Your task to perform on an android device: Search for logitech g pro on ebay.com, select the first entry, and add it to the cart. Image 0: 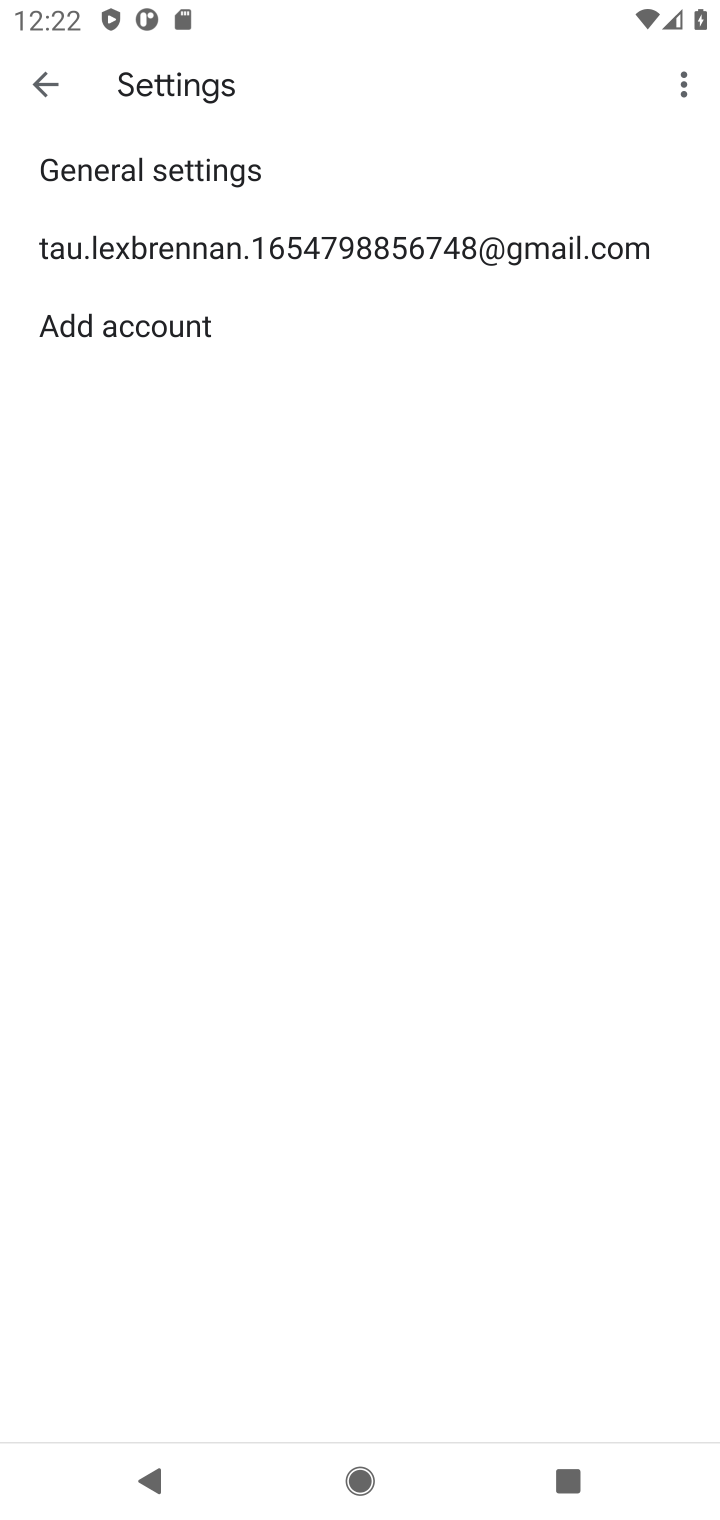
Step 0: press home button
Your task to perform on an android device: Search for logitech g pro on ebay.com, select the first entry, and add it to the cart. Image 1: 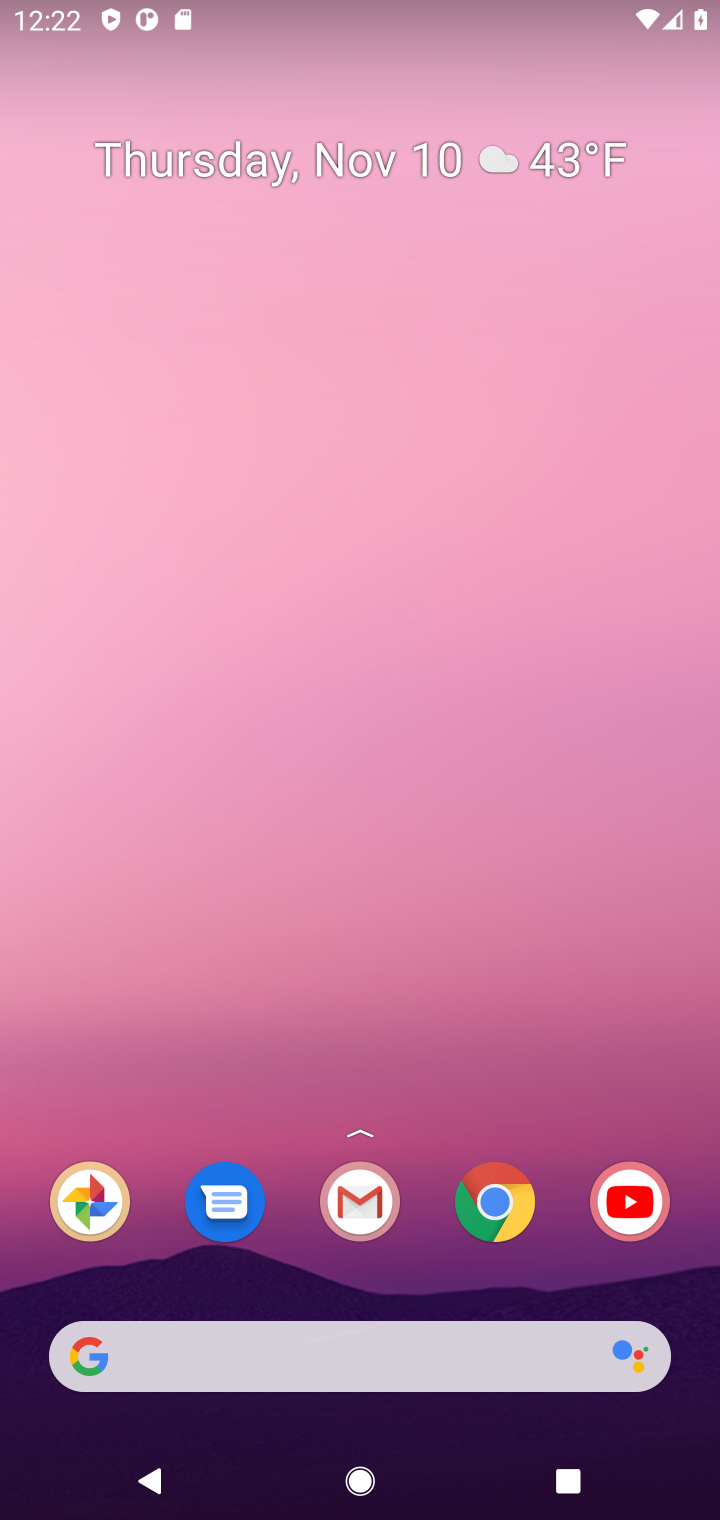
Step 1: click (489, 1198)
Your task to perform on an android device: Search for logitech g pro on ebay.com, select the first entry, and add it to the cart. Image 2: 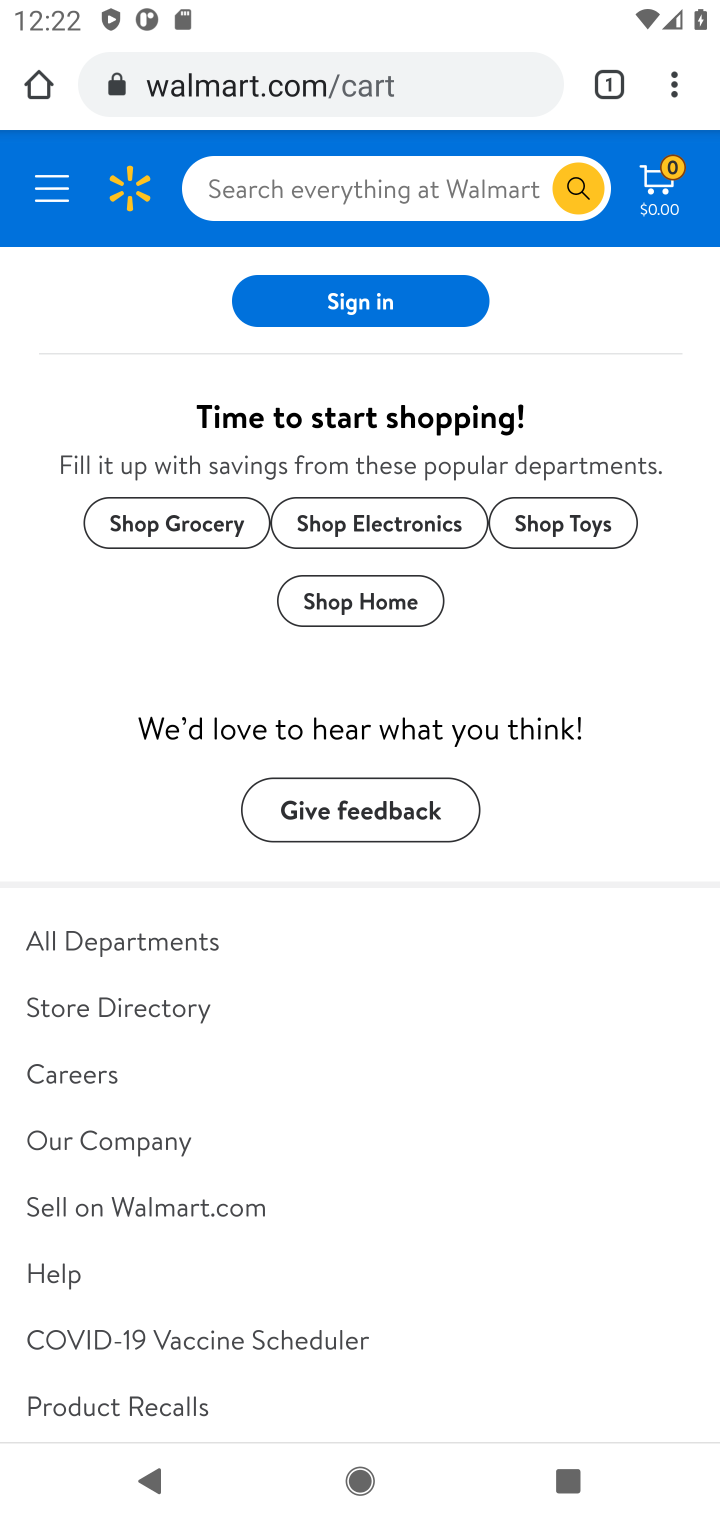
Step 2: click (417, 92)
Your task to perform on an android device: Search for logitech g pro on ebay.com, select the first entry, and add it to the cart. Image 3: 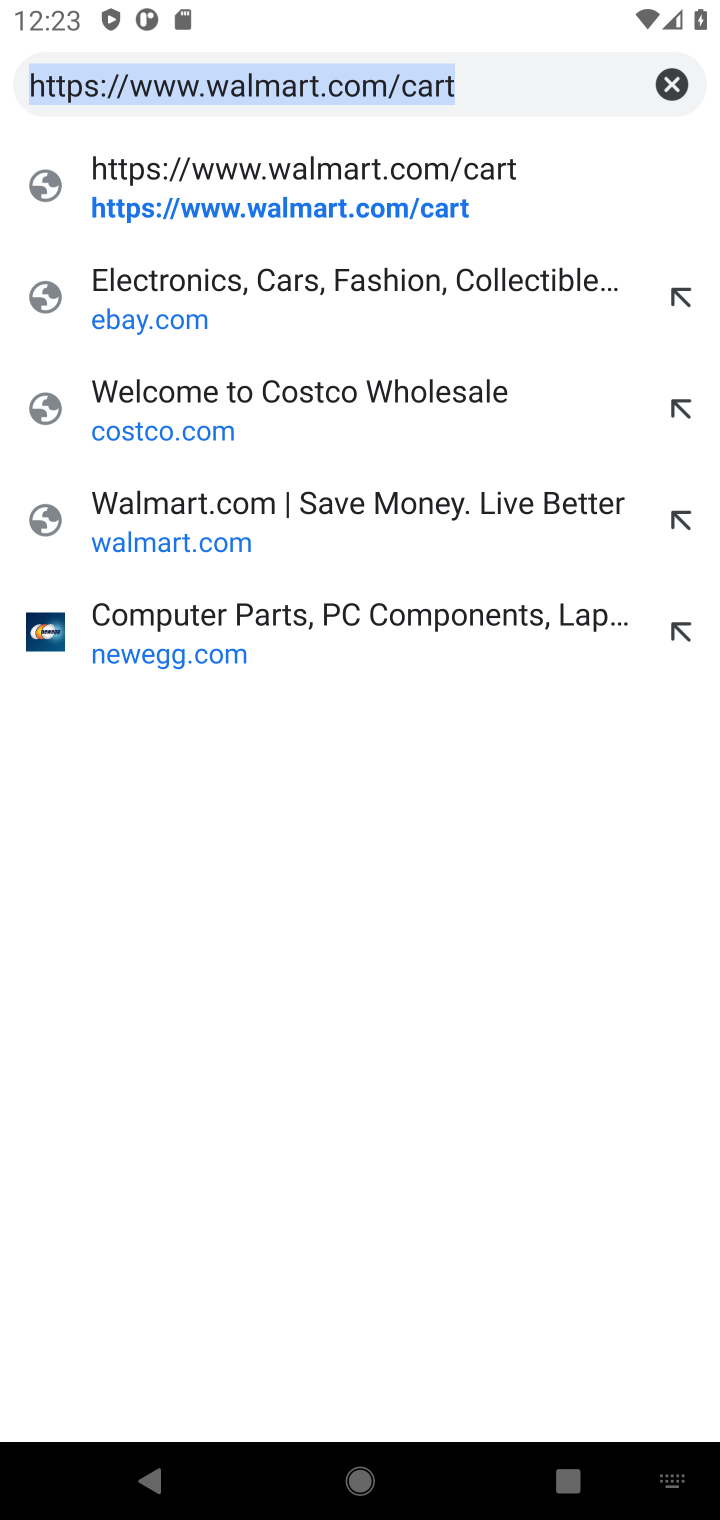
Step 3: click (245, 282)
Your task to perform on an android device: Search for logitech g pro on ebay.com, select the first entry, and add it to the cart. Image 4: 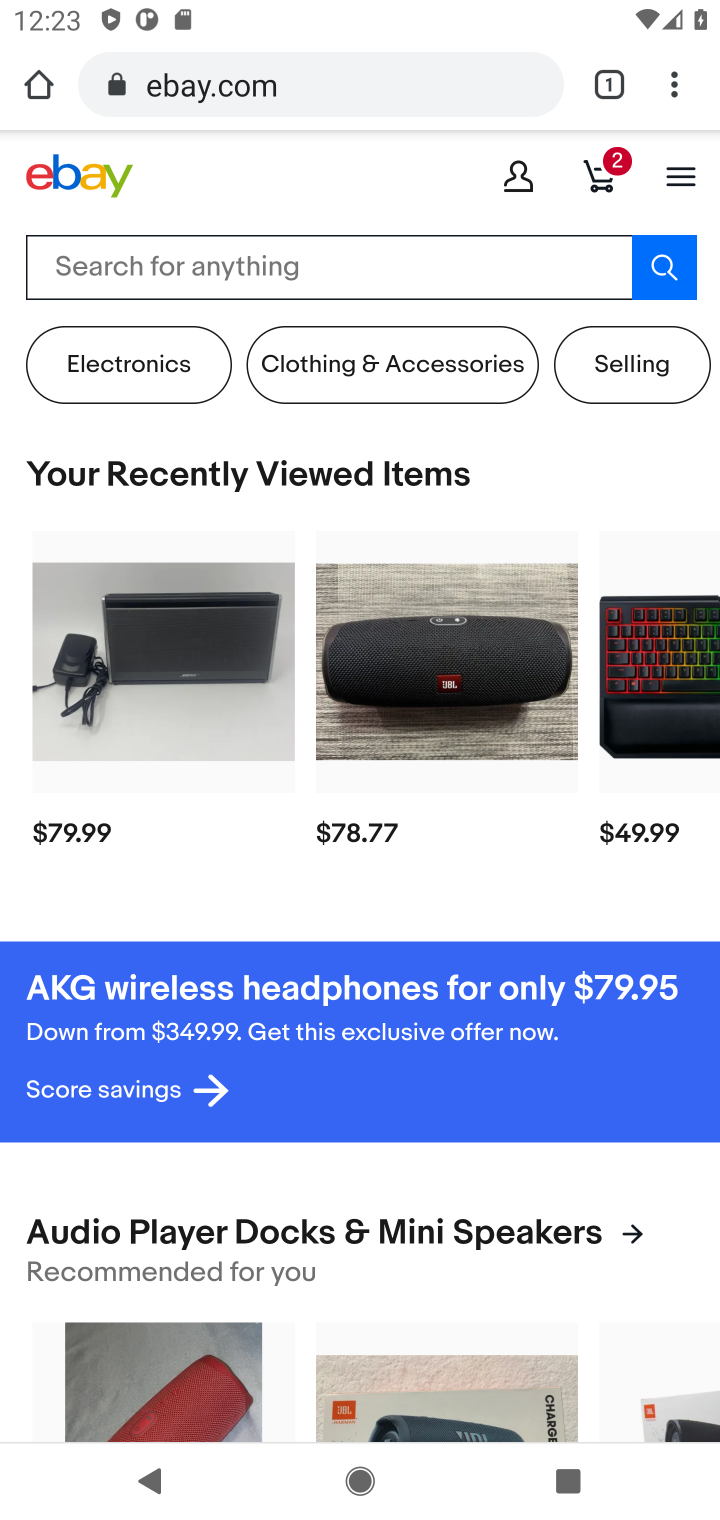
Step 4: click (439, 269)
Your task to perform on an android device: Search for logitech g pro on ebay.com, select the first entry, and add it to the cart. Image 5: 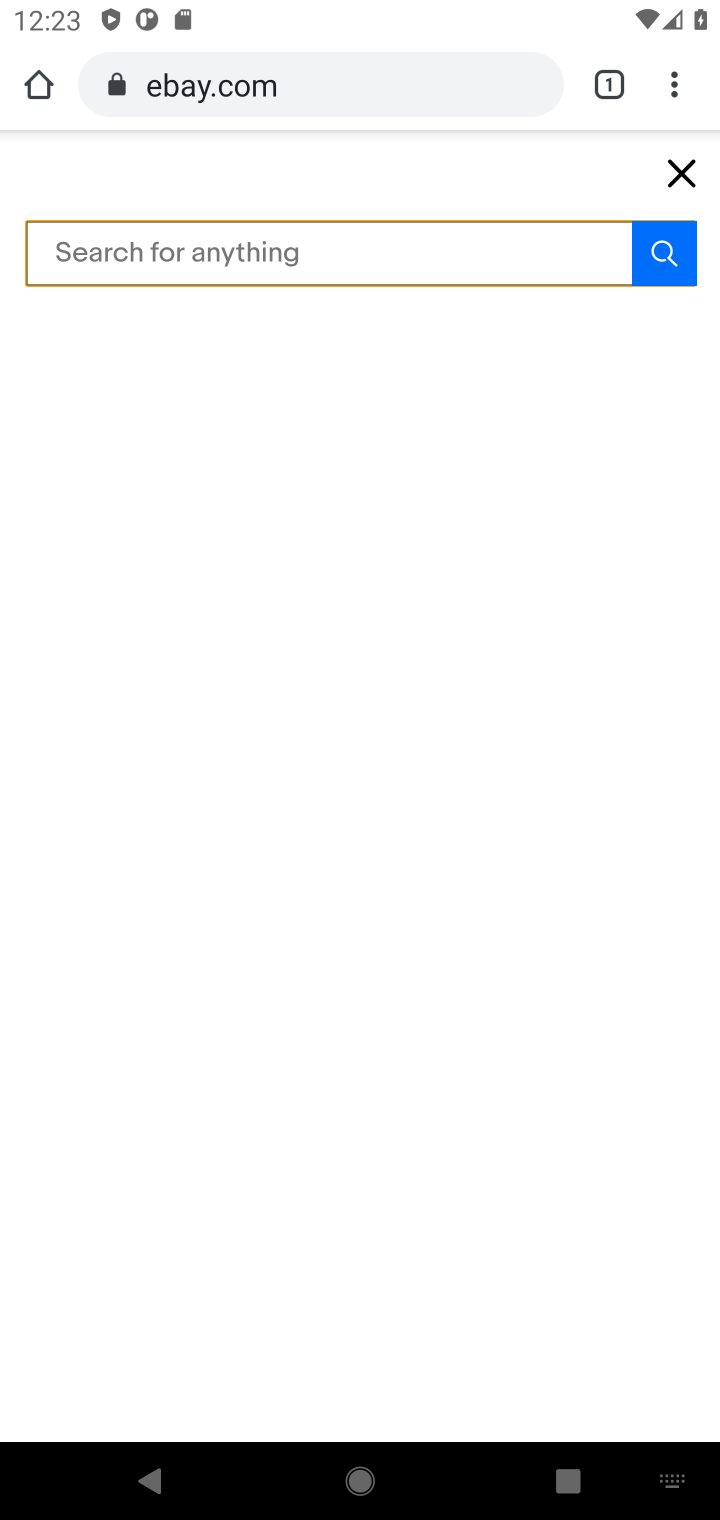
Step 5: press enter
Your task to perform on an android device: Search for logitech g pro on ebay.com, select the first entry, and add it to the cart. Image 6: 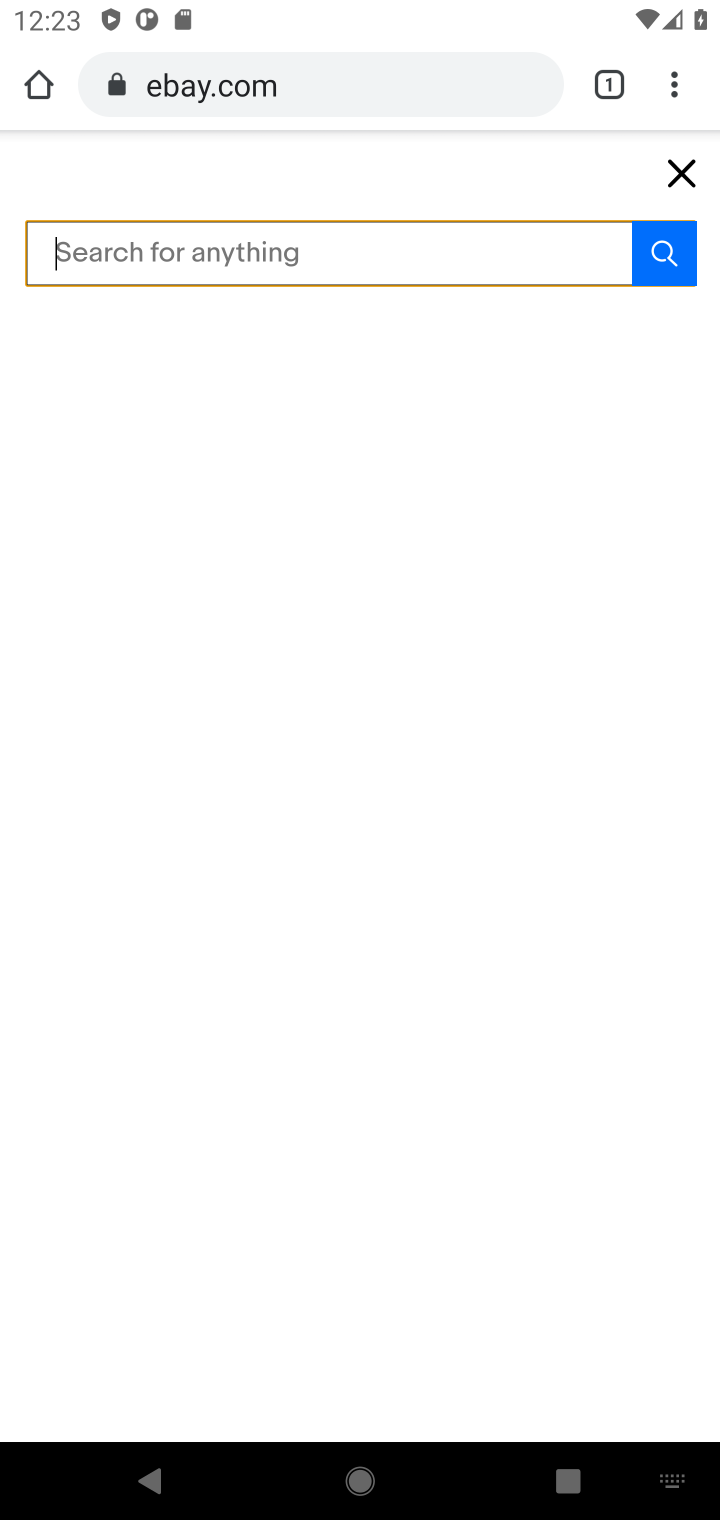
Step 6: type " logitech g pro"
Your task to perform on an android device: Search for logitech g pro on ebay.com, select the first entry, and add it to the cart. Image 7: 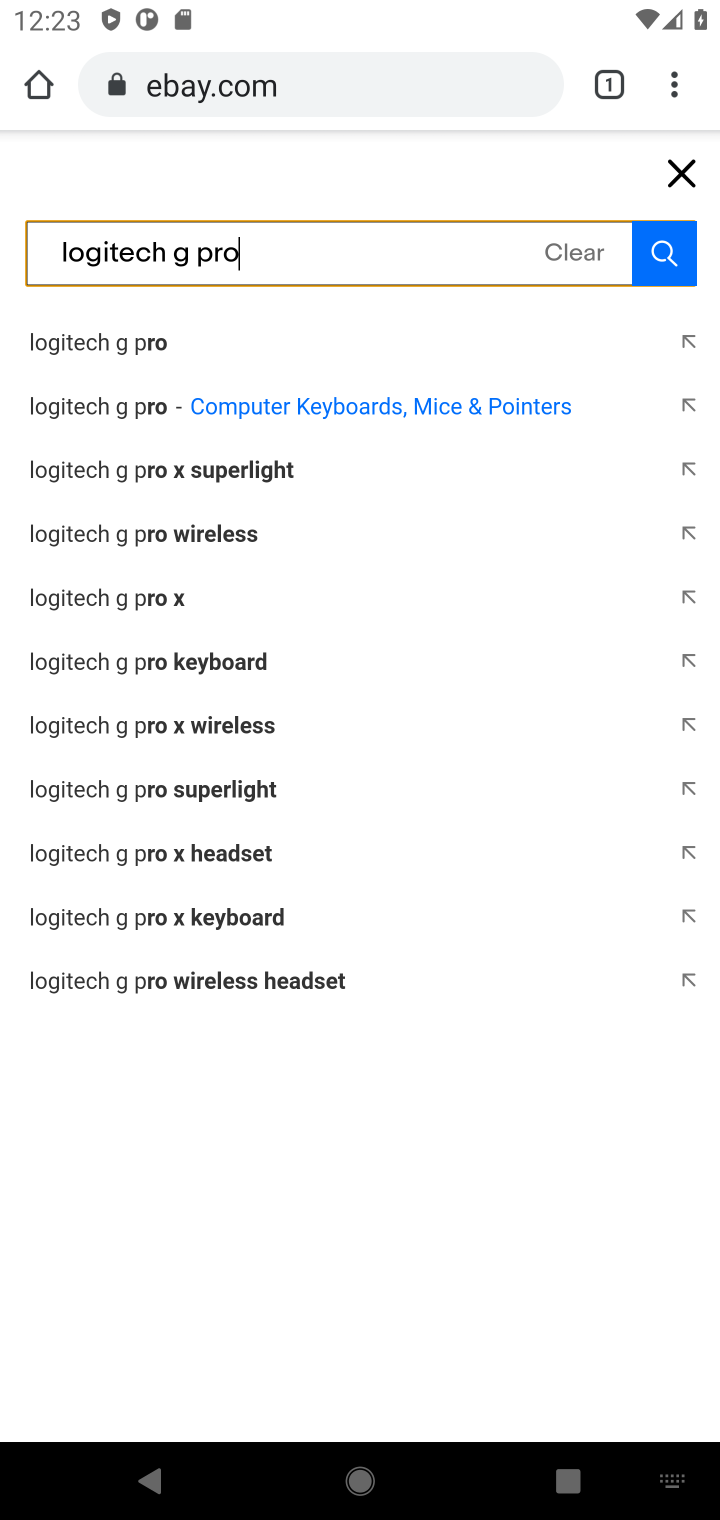
Step 7: click (142, 343)
Your task to perform on an android device: Search for logitech g pro on ebay.com, select the first entry, and add it to the cart. Image 8: 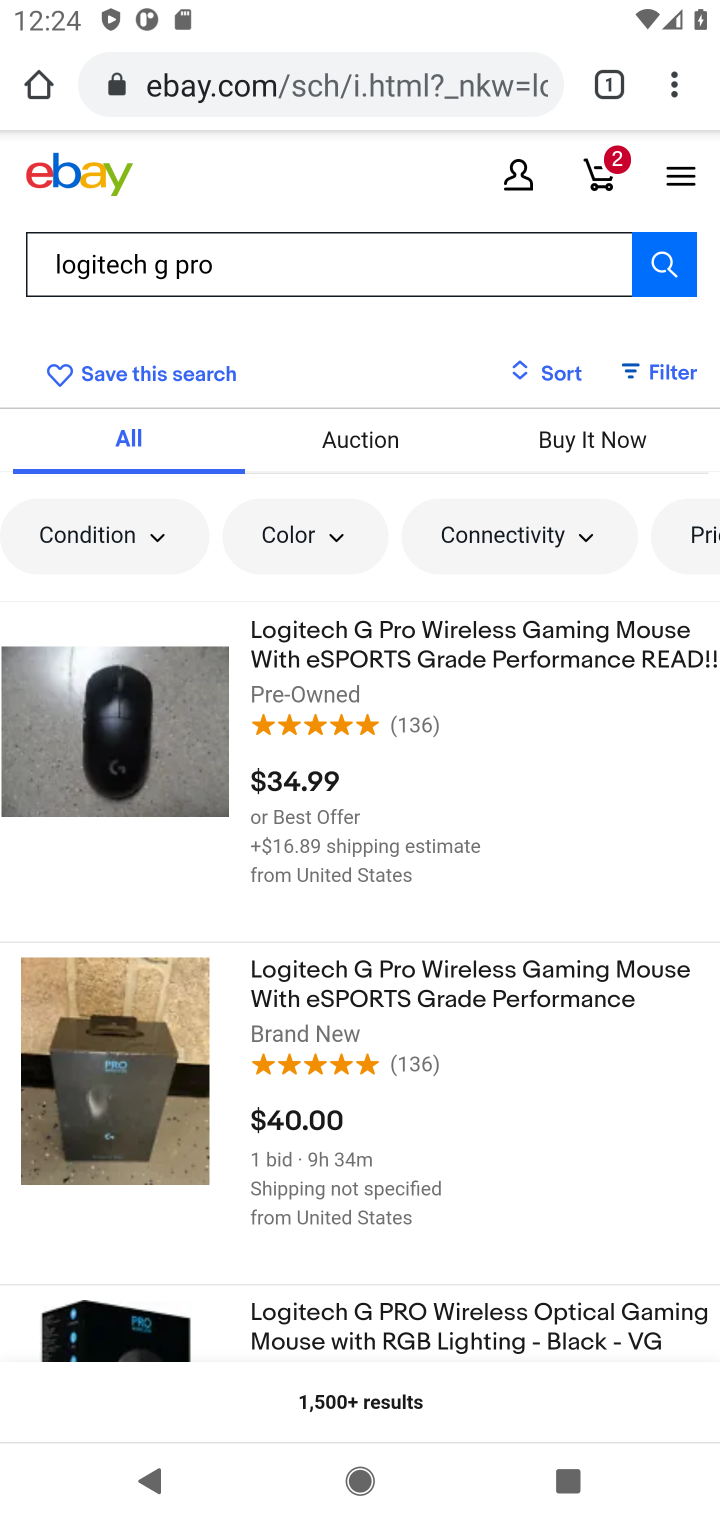
Step 8: click (162, 756)
Your task to perform on an android device: Search for logitech g pro on ebay.com, select the first entry, and add it to the cart. Image 9: 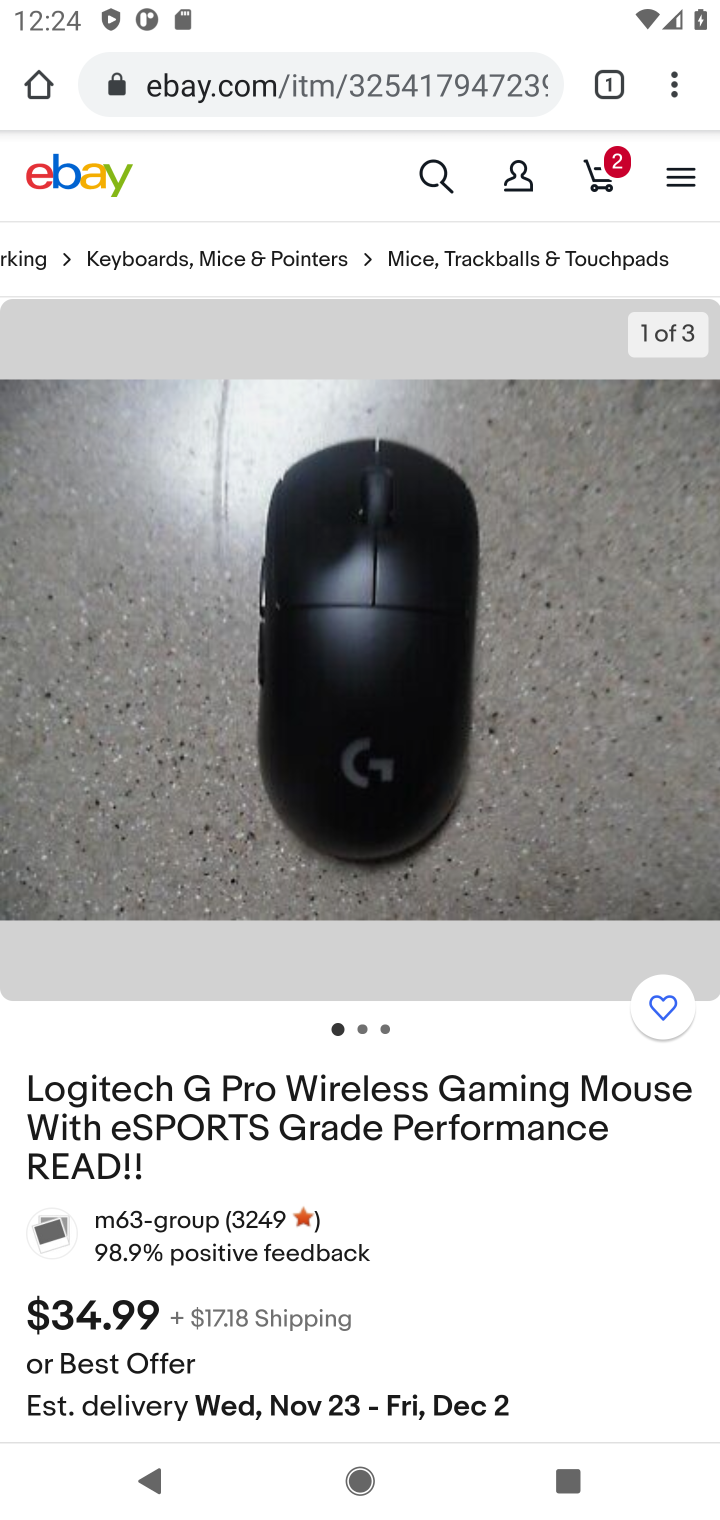
Step 9: drag from (540, 494) to (555, 416)
Your task to perform on an android device: Search for logitech g pro on ebay.com, select the first entry, and add it to the cart. Image 10: 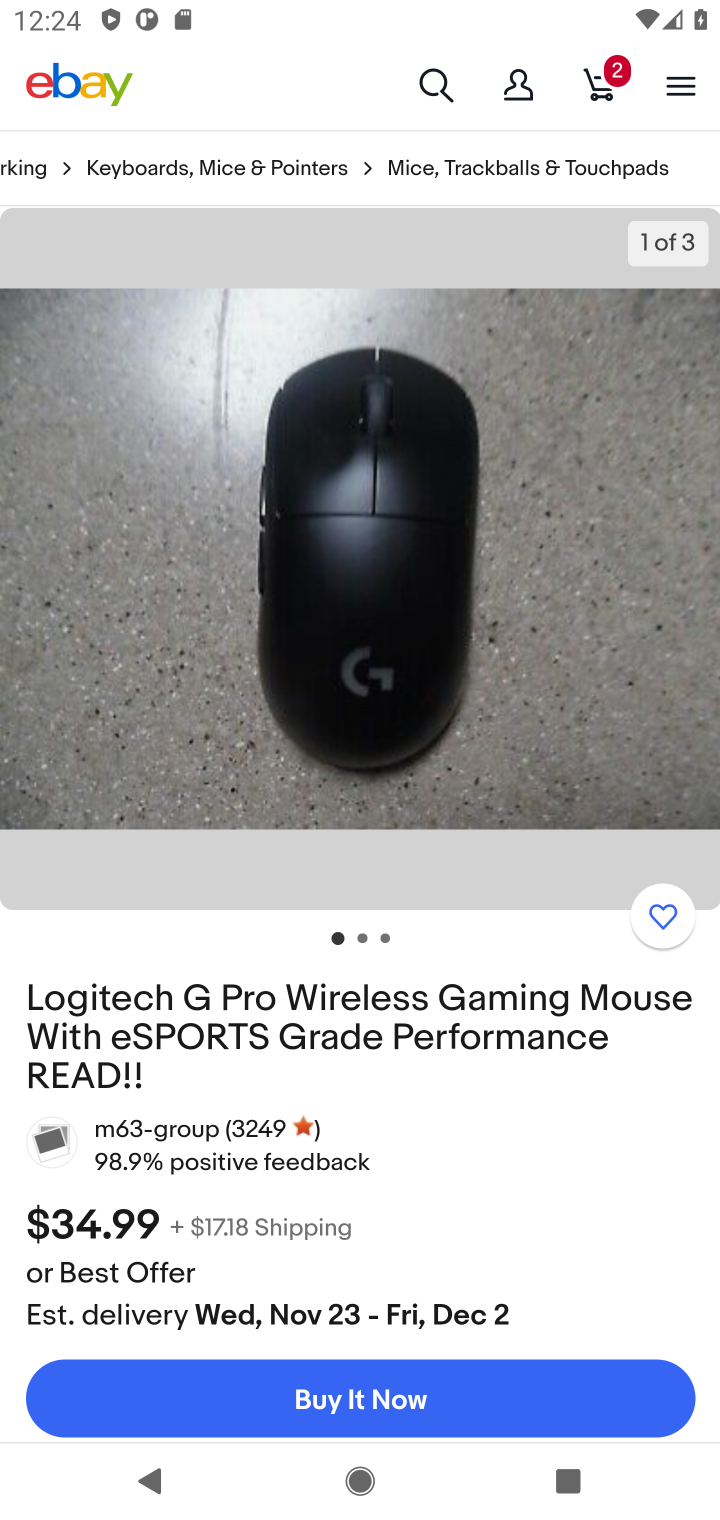
Step 10: drag from (625, 748) to (622, 648)
Your task to perform on an android device: Search for logitech g pro on ebay.com, select the first entry, and add it to the cart. Image 11: 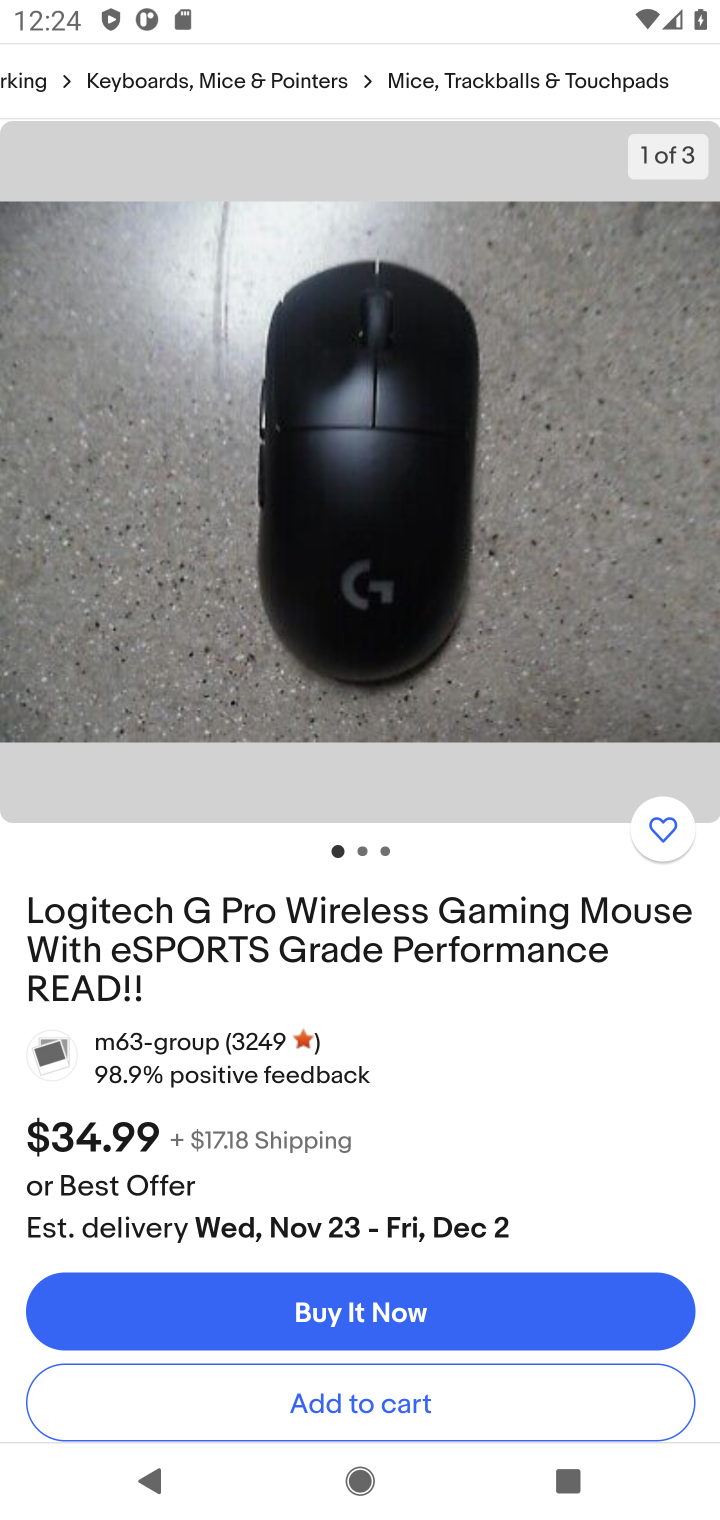
Step 11: click (386, 1399)
Your task to perform on an android device: Search for logitech g pro on ebay.com, select the first entry, and add it to the cart. Image 12: 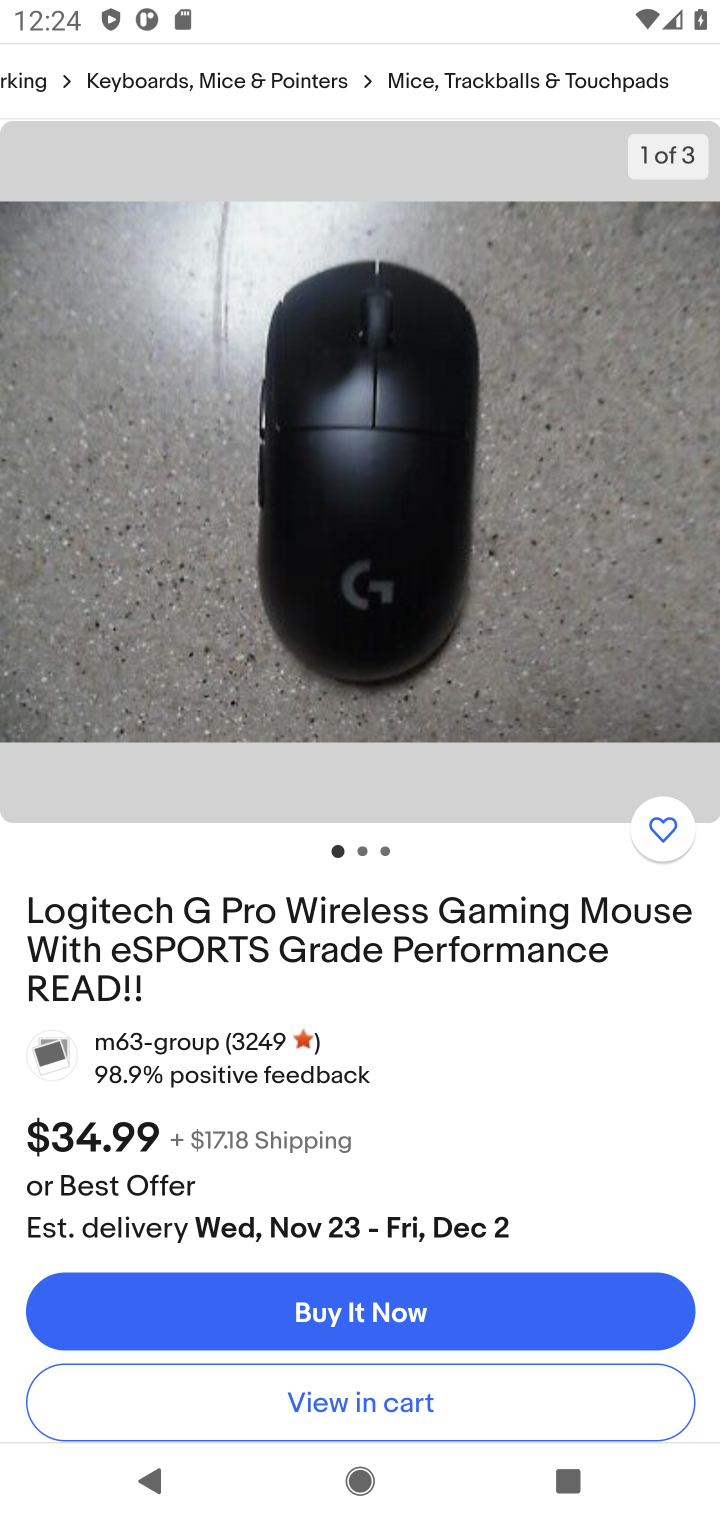
Step 12: click (386, 1387)
Your task to perform on an android device: Search for logitech g pro on ebay.com, select the first entry, and add it to the cart. Image 13: 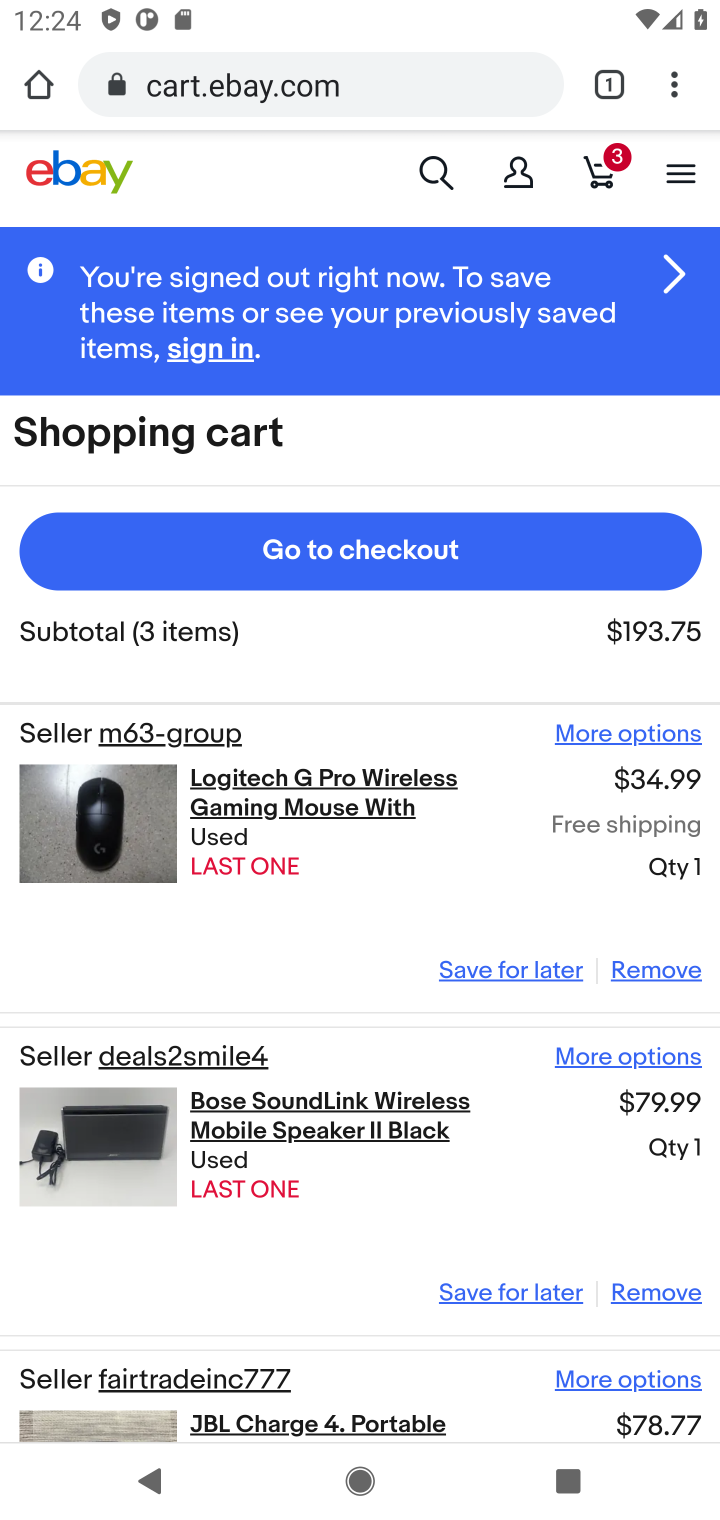
Step 13: task complete